Your task to perform on an android device: Go to accessibility settings Image 0: 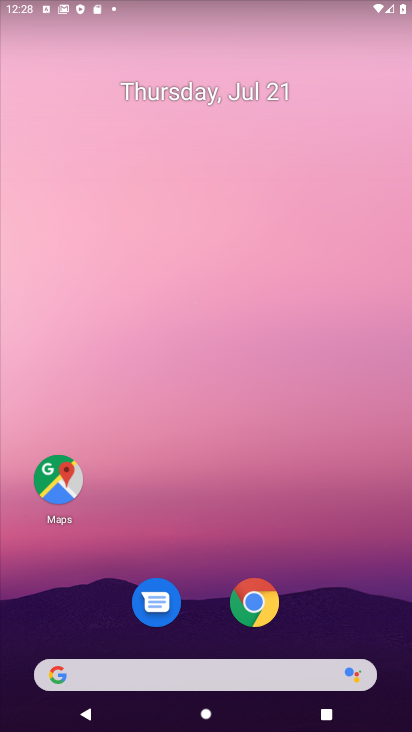
Step 0: drag from (384, 622) to (180, 22)
Your task to perform on an android device: Go to accessibility settings Image 1: 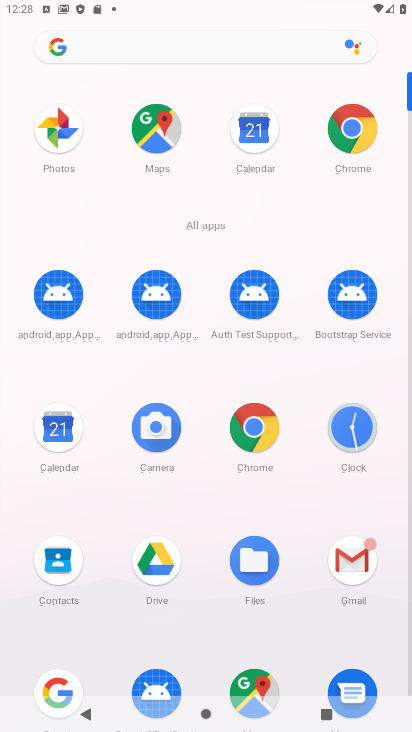
Step 1: drag from (193, 624) to (175, 114)
Your task to perform on an android device: Go to accessibility settings Image 2: 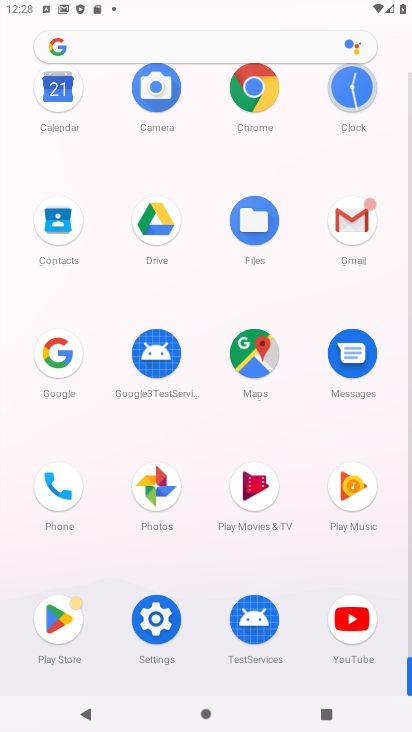
Step 2: click (164, 608)
Your task to perform on an android device: Go to accessibility settings Image 3: 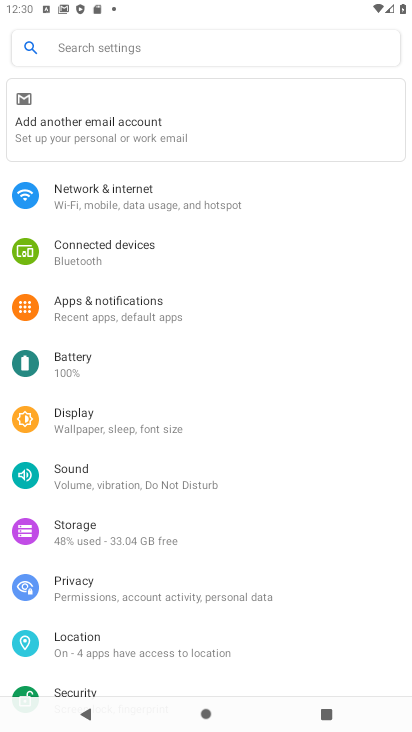
Step 3: drag from (115, 605) to (169, 51)
Your task to perform on an android device: Go to accessibility settings Image 4: 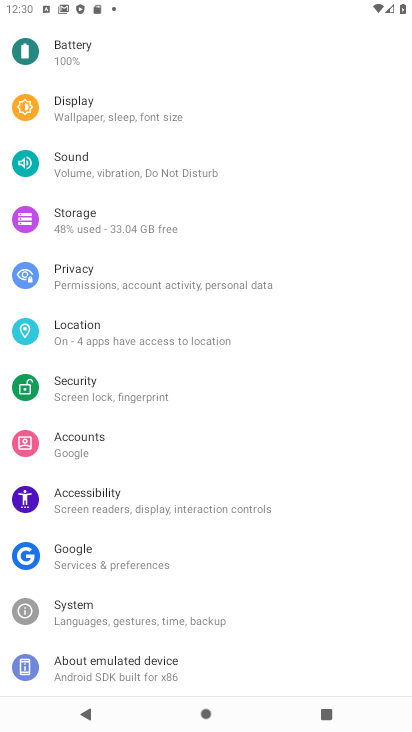
Step 4: click (103, 509)
Your task to perform on an android device: Go to accessibility settings Image 5: 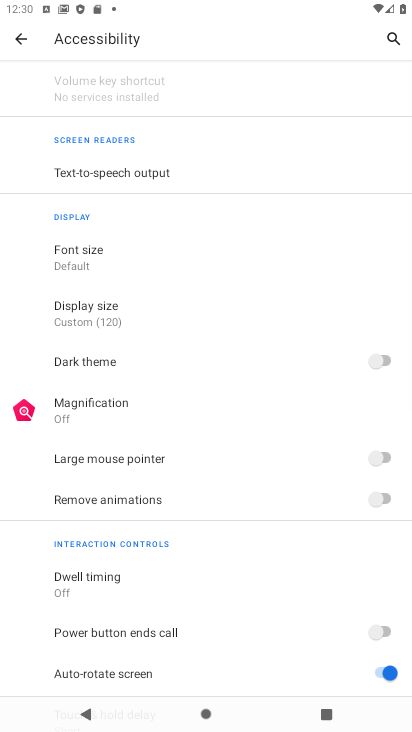
Step 5: task complete